Your task to perform on an android device: add a contact Image 0: 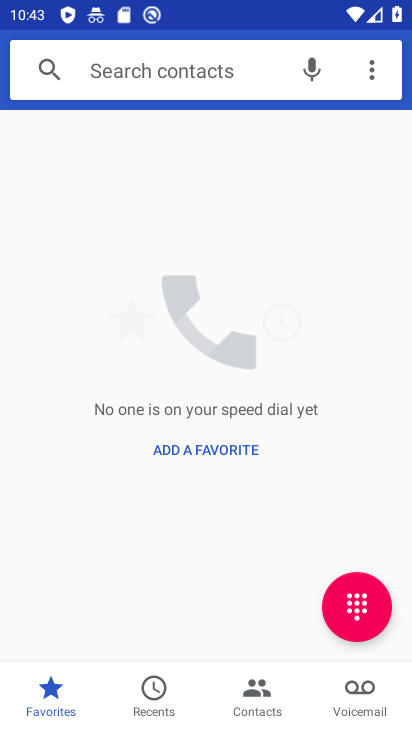
Step 0: click (254, 718)
Your task to perform on an android device: add a contact Image 1: 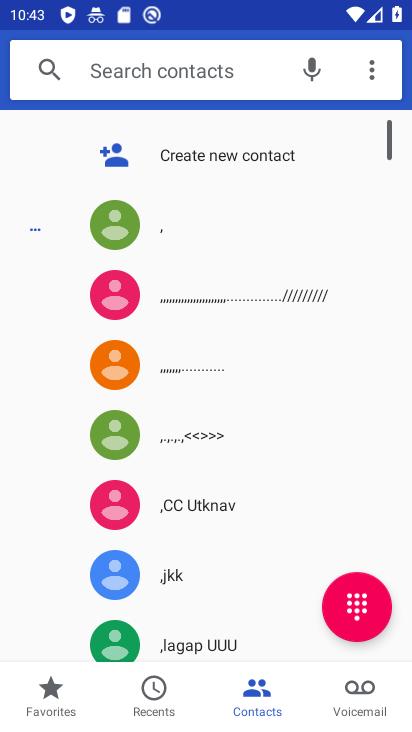
Step 1: click (174, 155)
Your task to perform on an android device: add a contact Image 2: 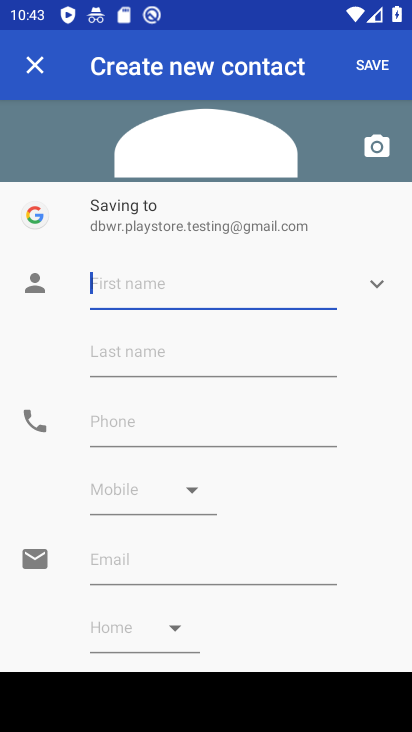
Step 2: type "hitler"
Your task to perform on an android device: add a contact Image 3: 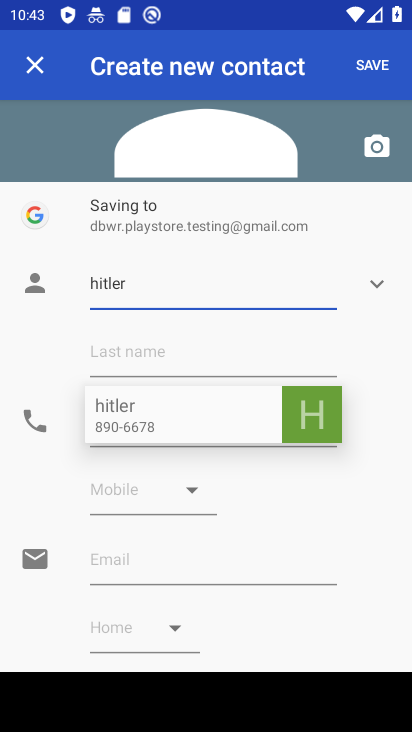
Step 3: click (282, 409)
Your task to perform on an android device: add a contact Image 4: 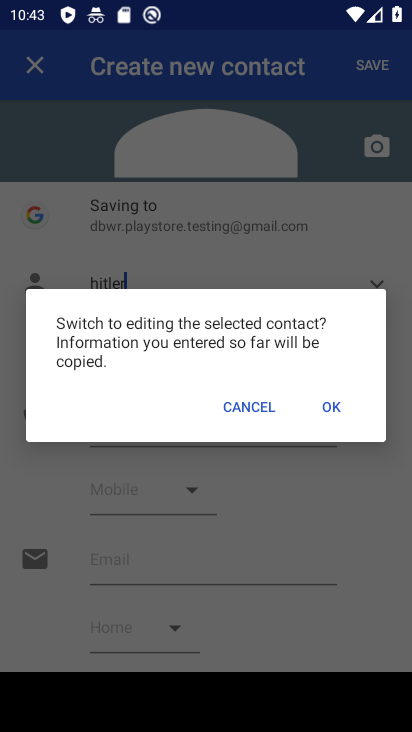
Step 4: click (246, 405)
Your task to perform on an android device: add a contact Image 5: 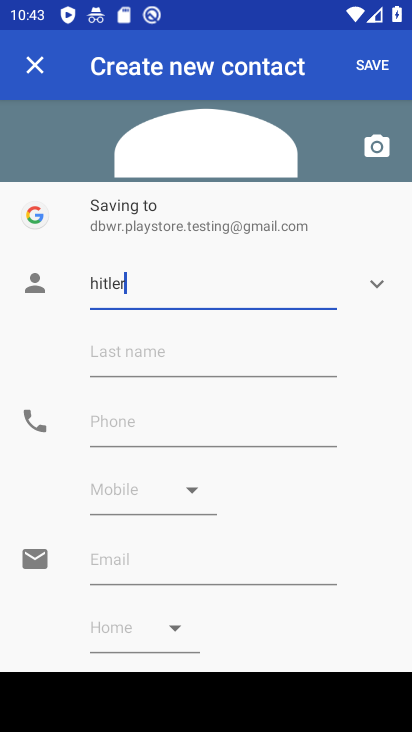
Step 5: click (210, 445)
Your task to perform on an android device: add a contact Image 6: 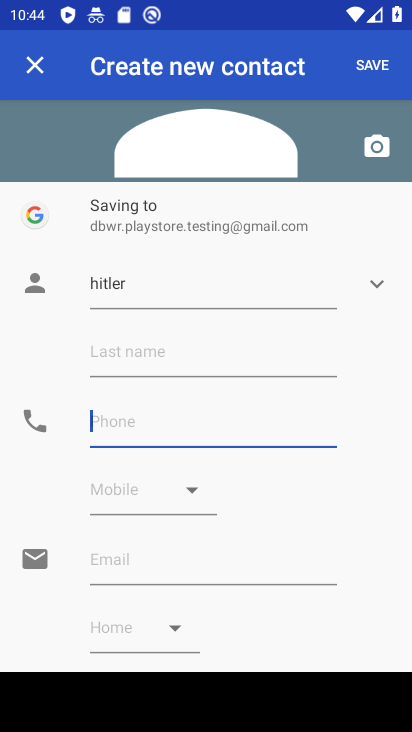
Step 6: type "6576658678"
Your task to perform on an android device: add a contact Image 7: 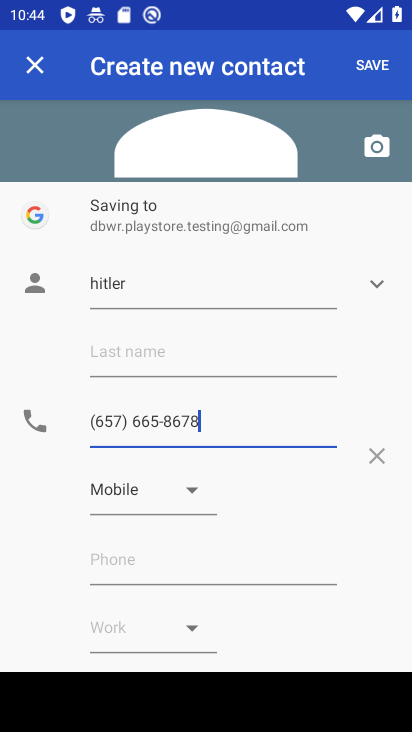
Step 7: click (373, 72)
Your task to perform on an android device: add a contact Image 8: 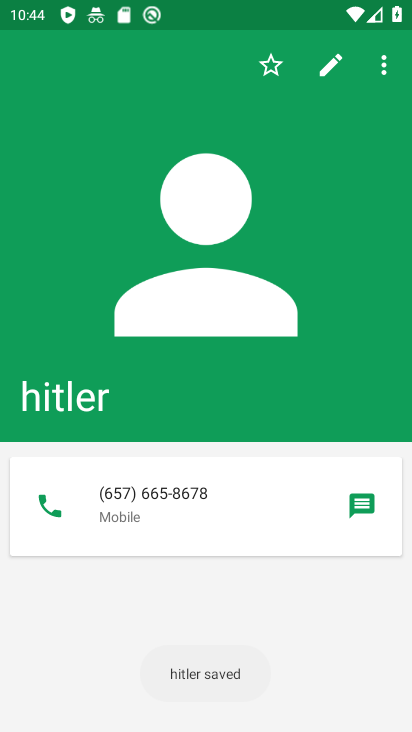
Step 8: task complete